Your task to perform on an android device: turn on airplane mode Image 0: 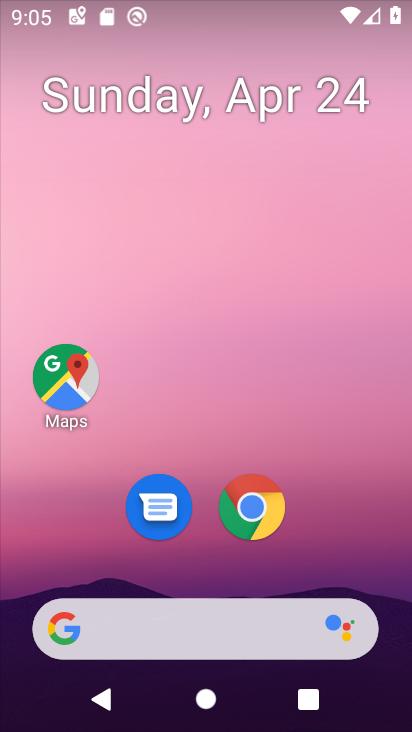
Step 0: drag from (371, 10) to (378, 557)
Your task to perform on an android device: turn on airplane mode Image 1: 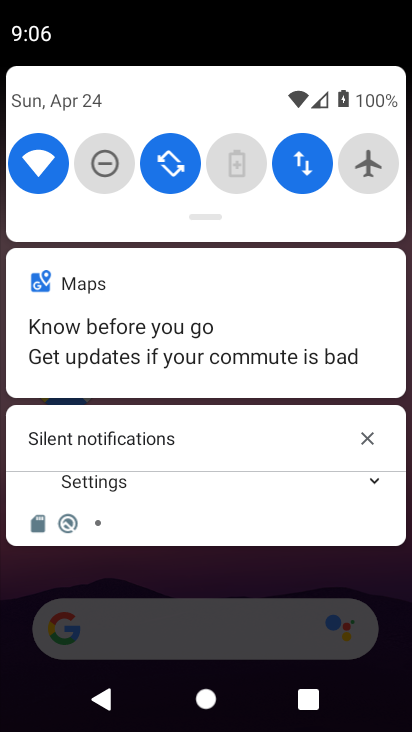
Step 1: click (372, 180)
Your task to perform on an android device: turn on airplane mode Image 2: 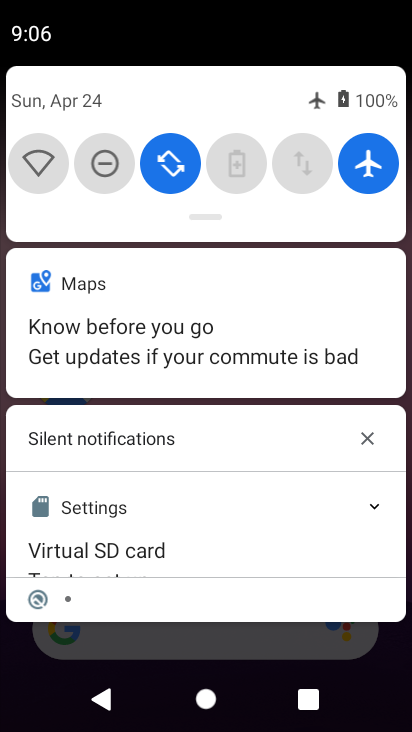
Step 2: task complete